Your task to perform on an android device: add a contact Image 0: 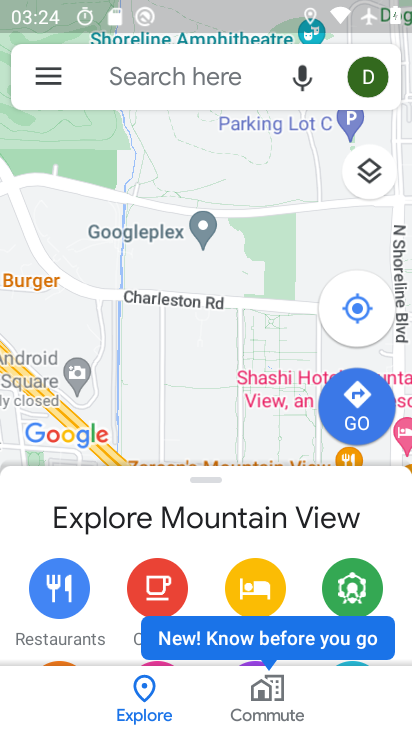
Step 0: press home button
Your task to perform on an android device: add a contact Image 1: 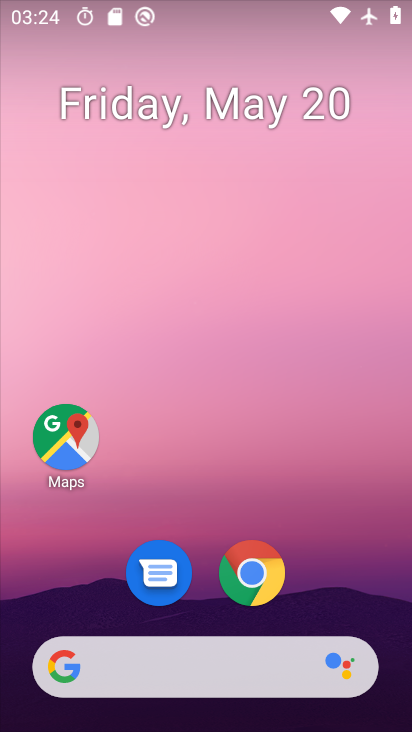
Step 1: drag from (209, 611) to (209, 212)
Your task to perform on an android device: add a contact Image 2: 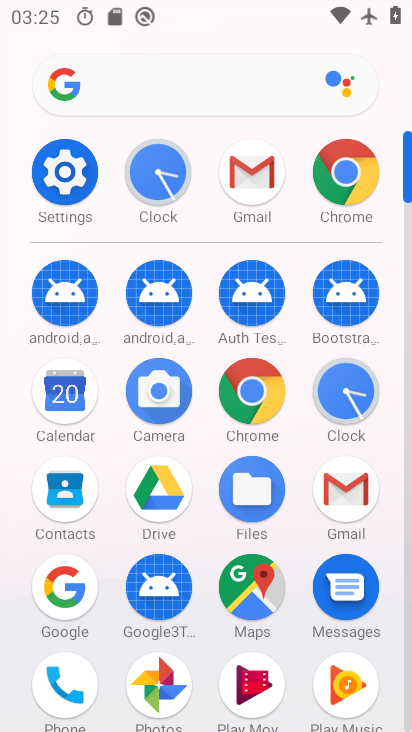
Step 2: click (76, 482)
Your task to perform on an android device: add a contact Image 3: 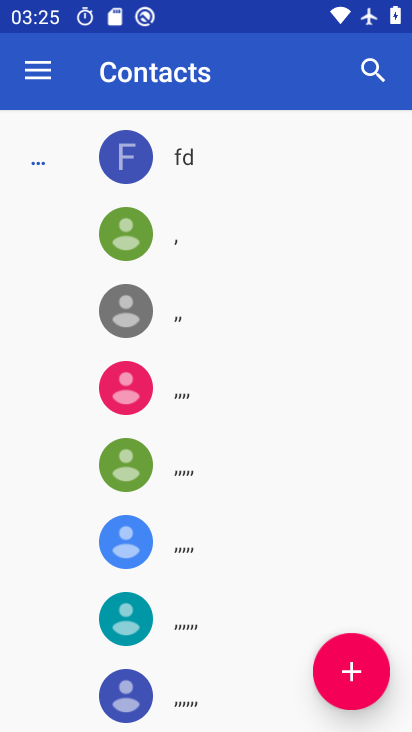
Step 3: click (342, 669)
Your task to perform on an android device: add a contact Image 4: 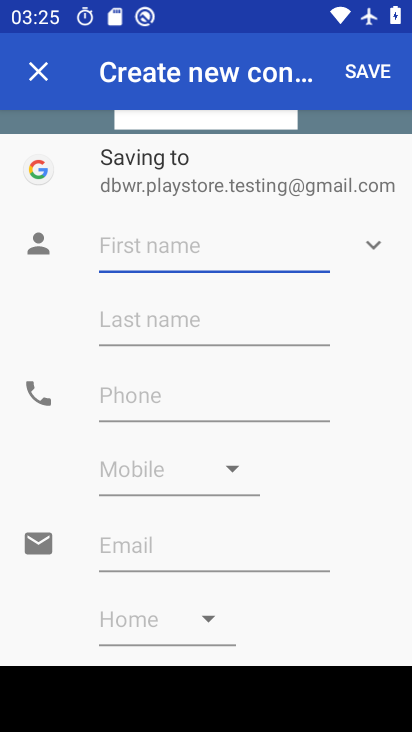
Step 4: type "jksbcjka"
Your task to perform on an android device: add a contact Image 5: 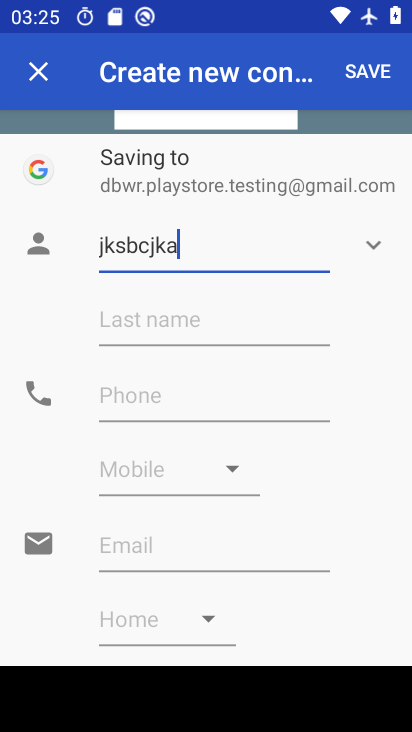
Step 5: click (216, 385)
Your task to perform on an android device: add a contact Image 6: 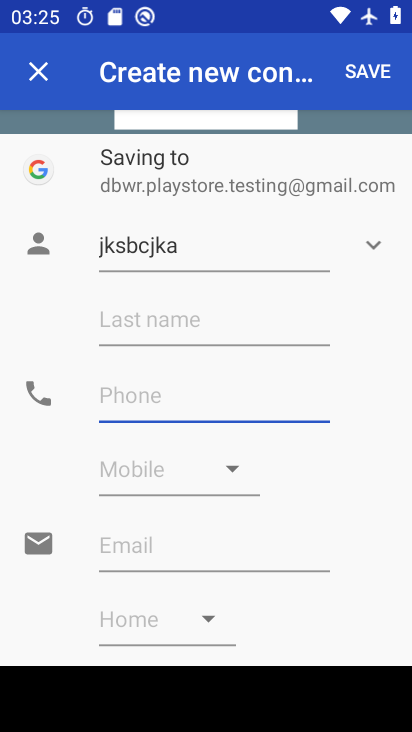
Step 6: type "5756745765"
Your task to perform on an android device: add a contact Image 7: 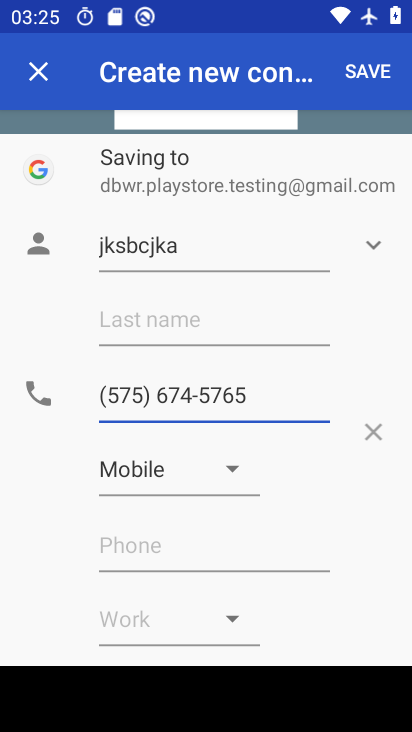
Step 7: click (380, 76)
Your task to perform on an android device: add a contact Image 8: 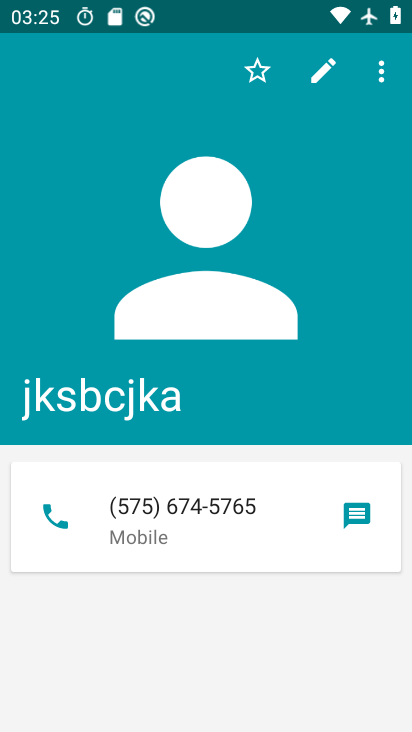
Step 8: task complete